Your task to perform on an android device: Go to notification settings Image 0: 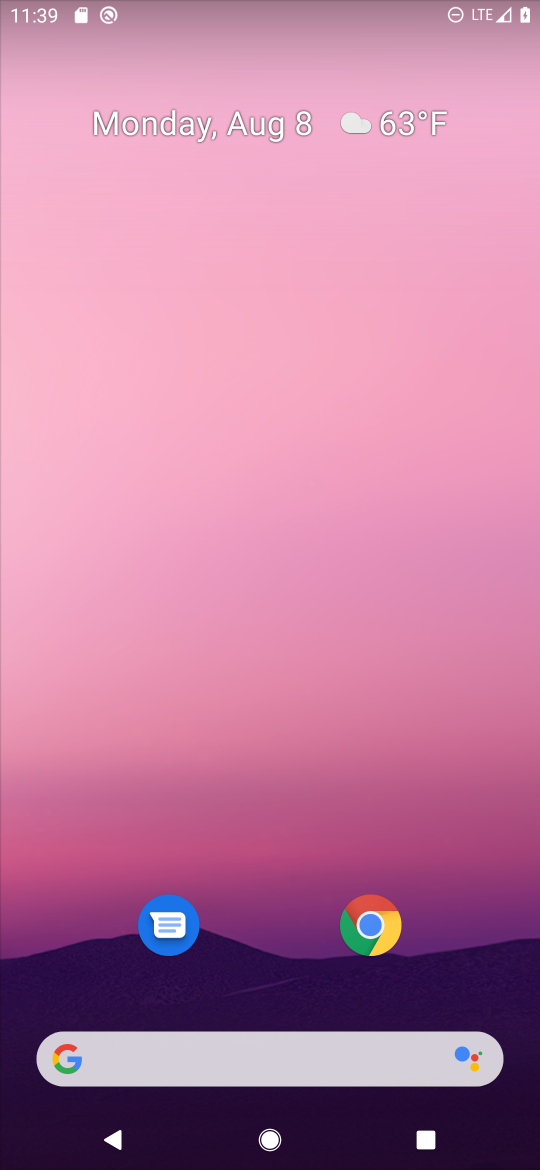
Step 0: drag from (258, 815) to (258, 18)
Your task to perform on an android device: Go to notification settings Image 1: 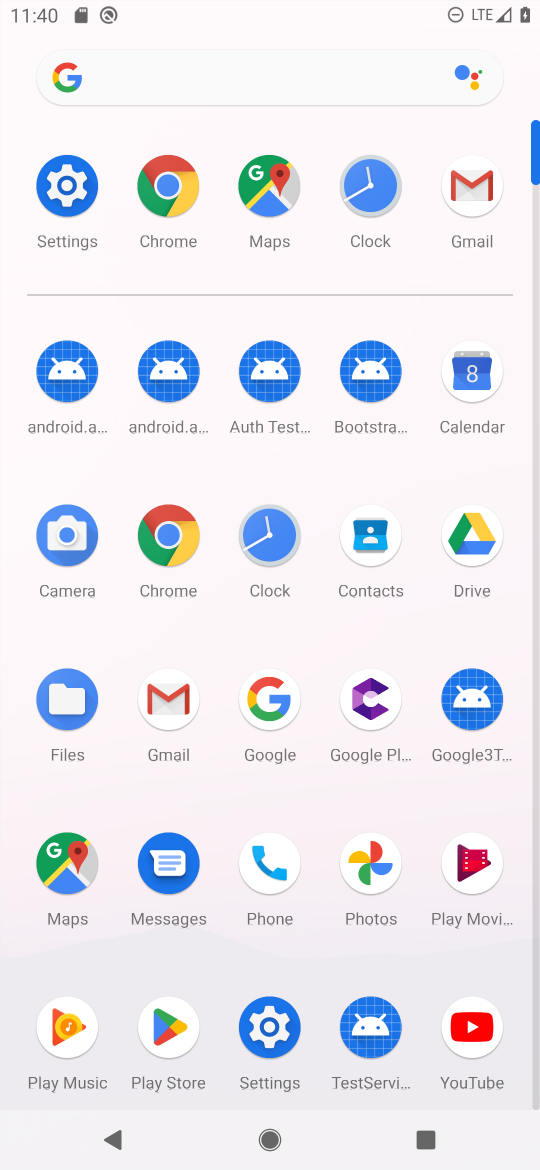
Step 1: click (267, 1025)
Your task to perform on an android device: Go to notification settings Image 2: 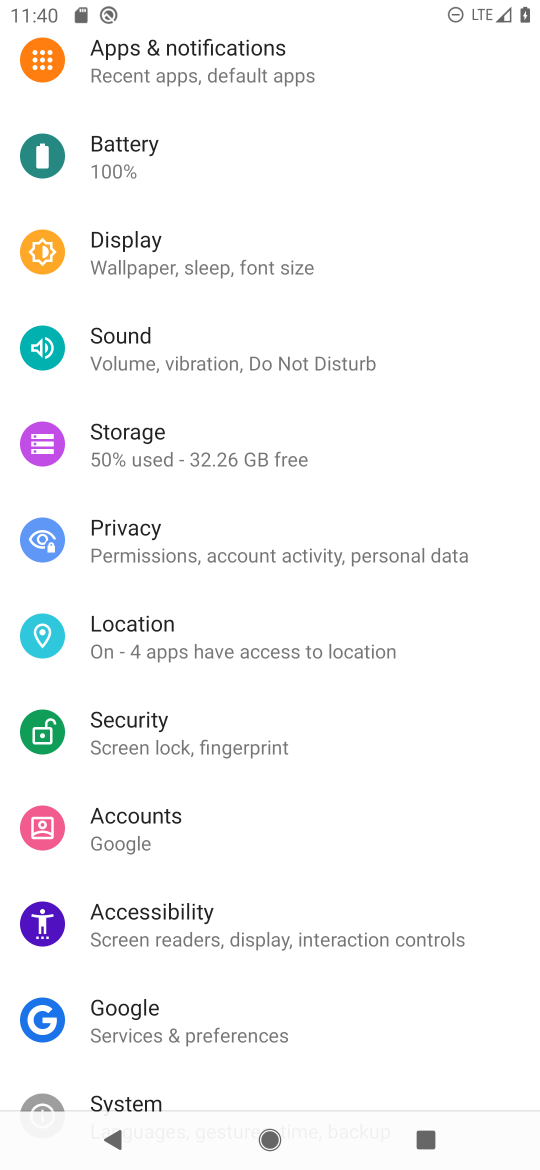
Step 2: click (210, 58)
Your task to perform on an android device: Go to notification settings Image 3: 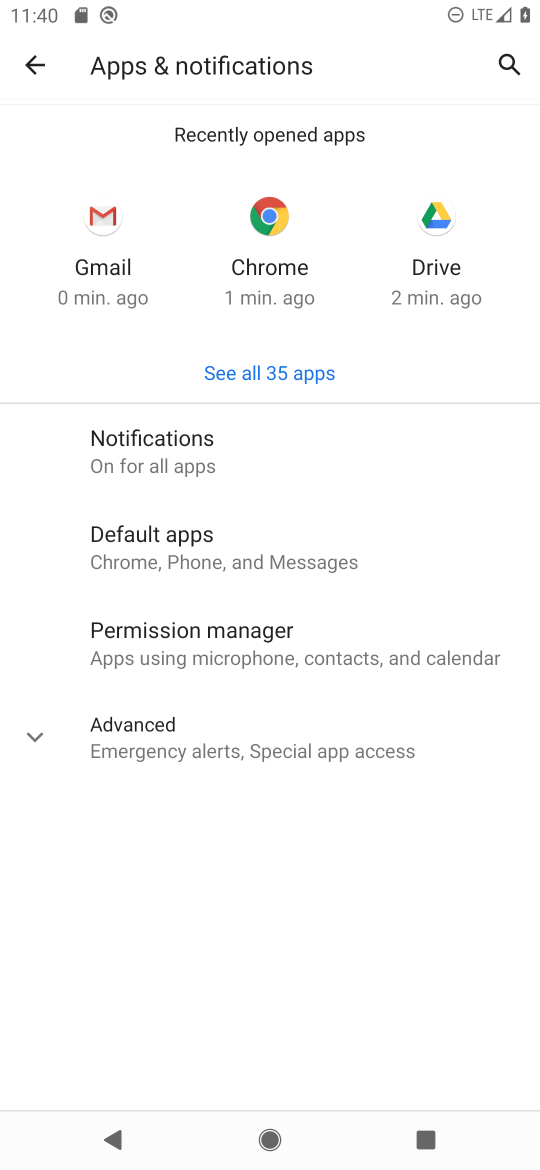
Step 3: click (199, 468)
Your task to perform on an android device: Go to notification settings Image 4: 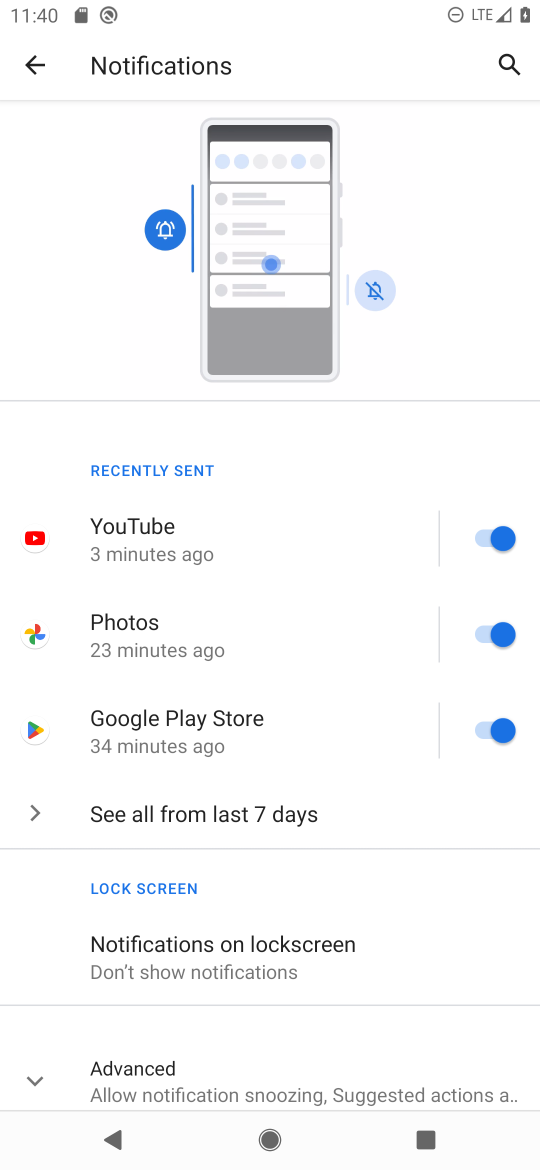
Step 4: task complete